Your task to perform on an android device: uninstall "Spotify: Music and Podcasts" Image 0: 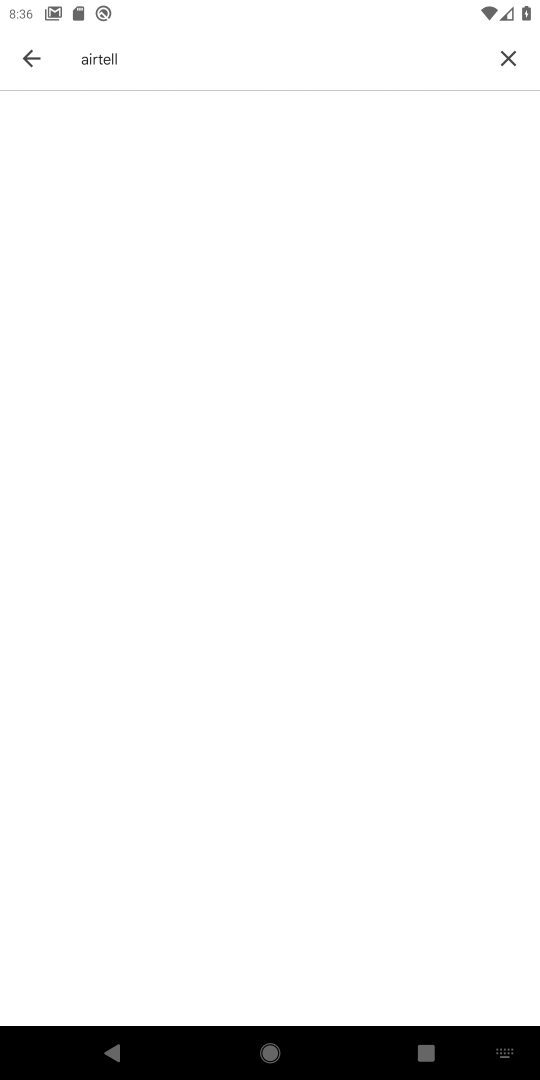
Step 0: press home button
Your task to perform on an android device: uninstall "Spotify: Music and Podcasts" Image 1: 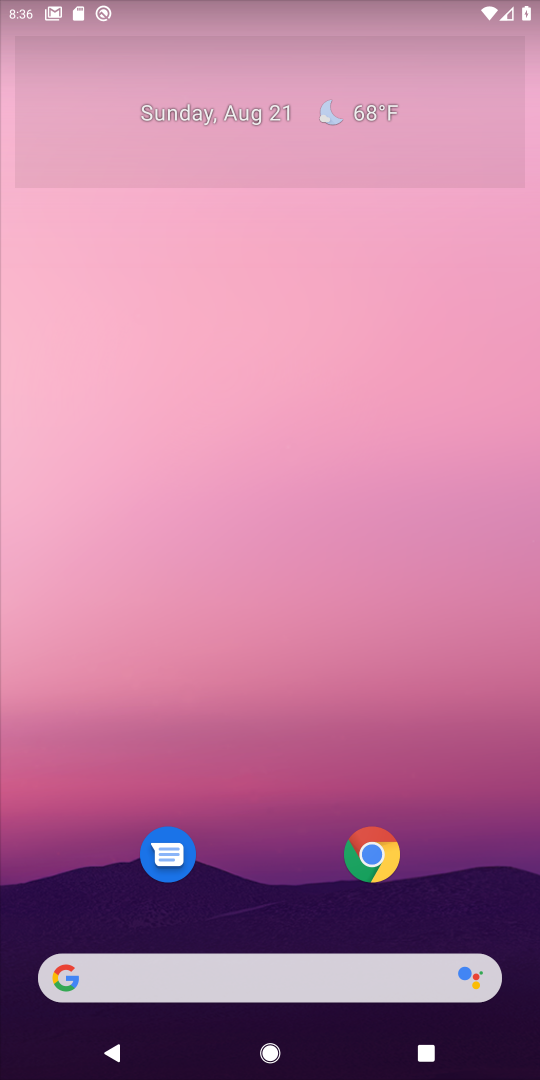
Step 1: drag from (285, 929) to (380, 199)
Your task to perform on an android device: uninstall "Spotify: Music and Podcasts" Image 2: 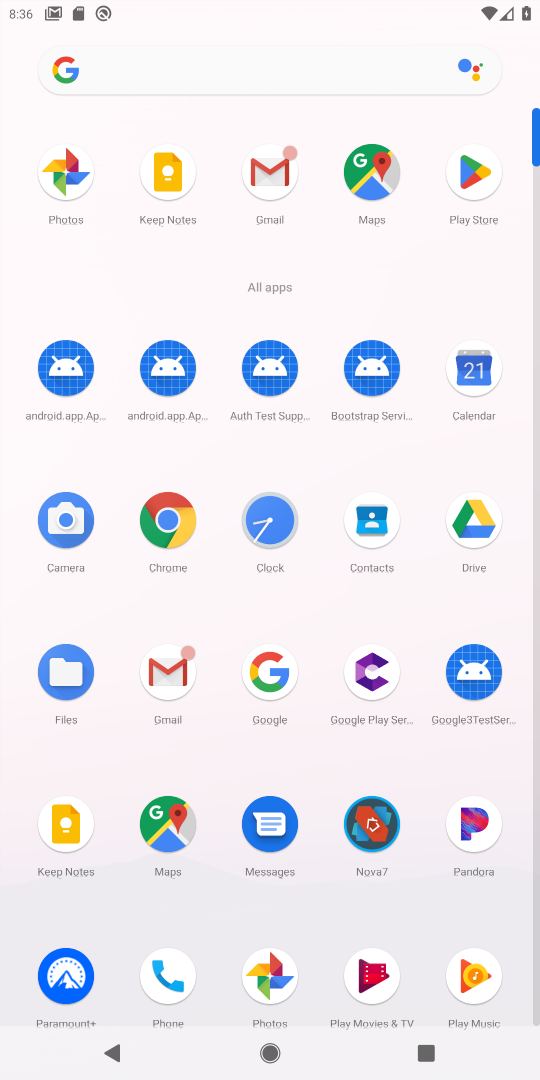
Step 2: click (474, 178)
Your task to perform on an android device: uninstall "Spotify: Music and Podcasts" Image 3: 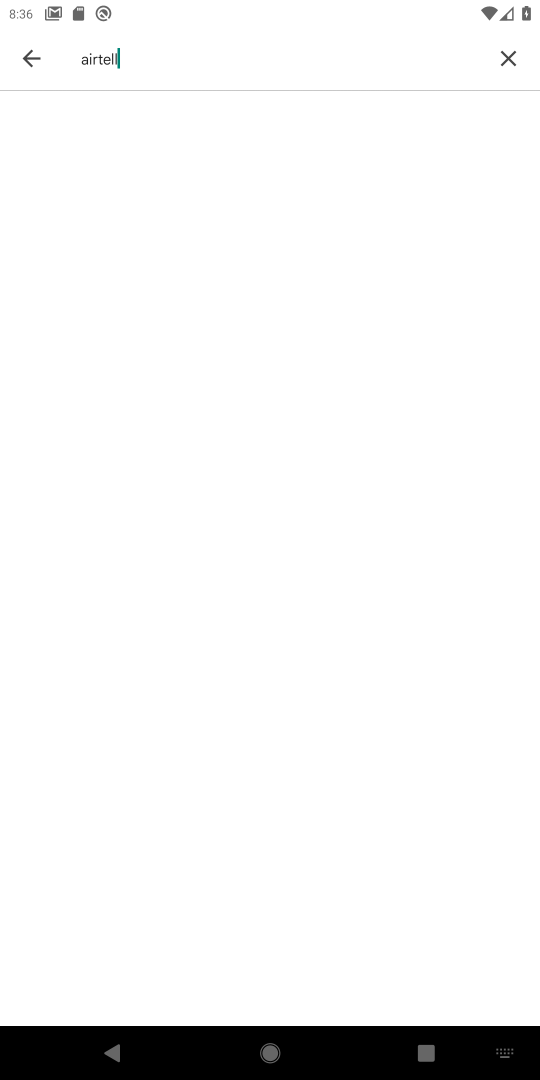
Step 3: click (509, 82)
Your task to perform on an android device: uninstall "Spotify: Music and Podcasts" Image 4: 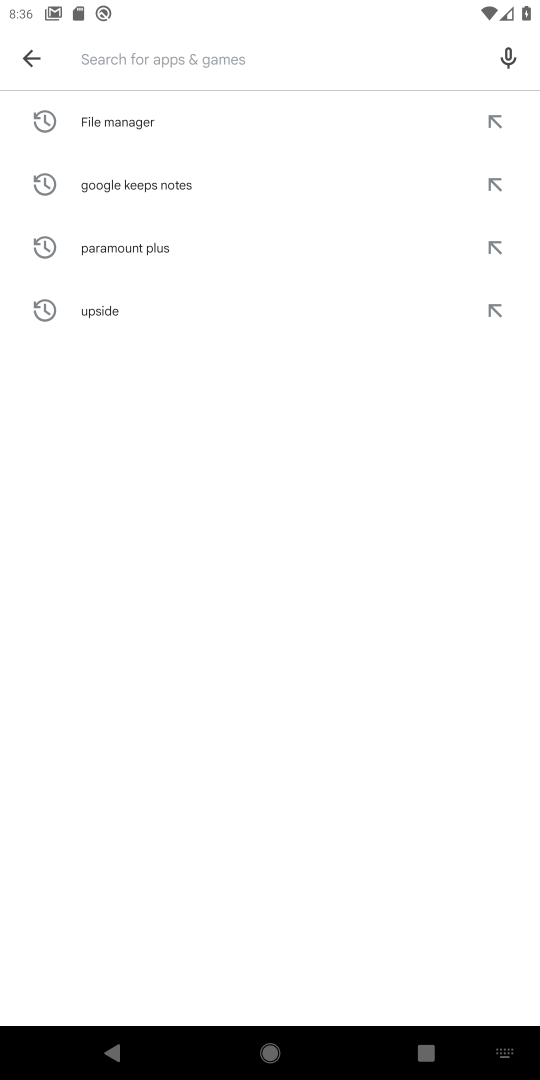
Step 4: type "spotify"
Your task to perform on an android device: uninstall "Spotify: Music and Podcasts" Image 5: 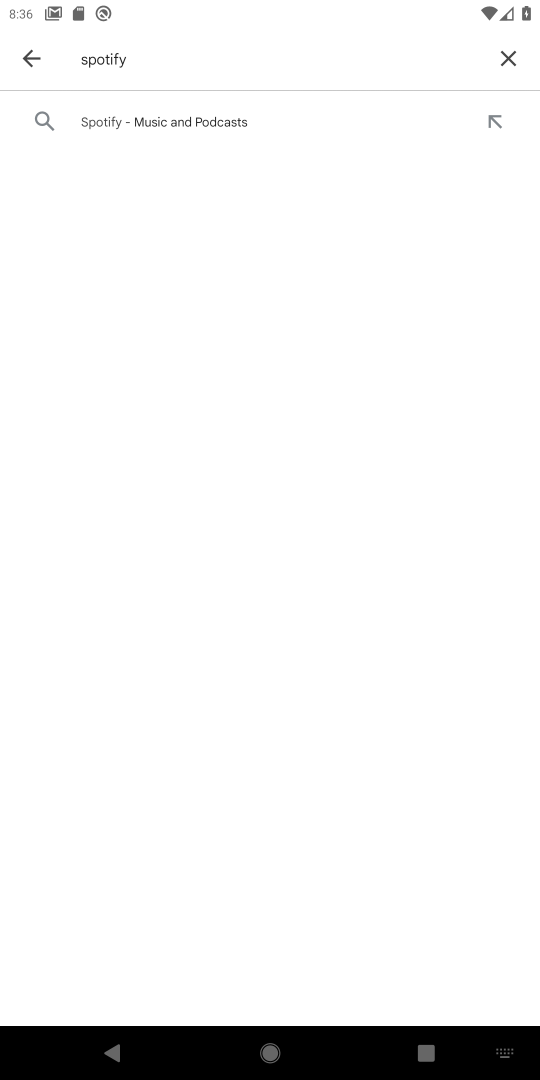
Step 5: click (155, 138)
Your task to perform on an android device: uninstall "Spotify: Music and Podcasts" Image 6: 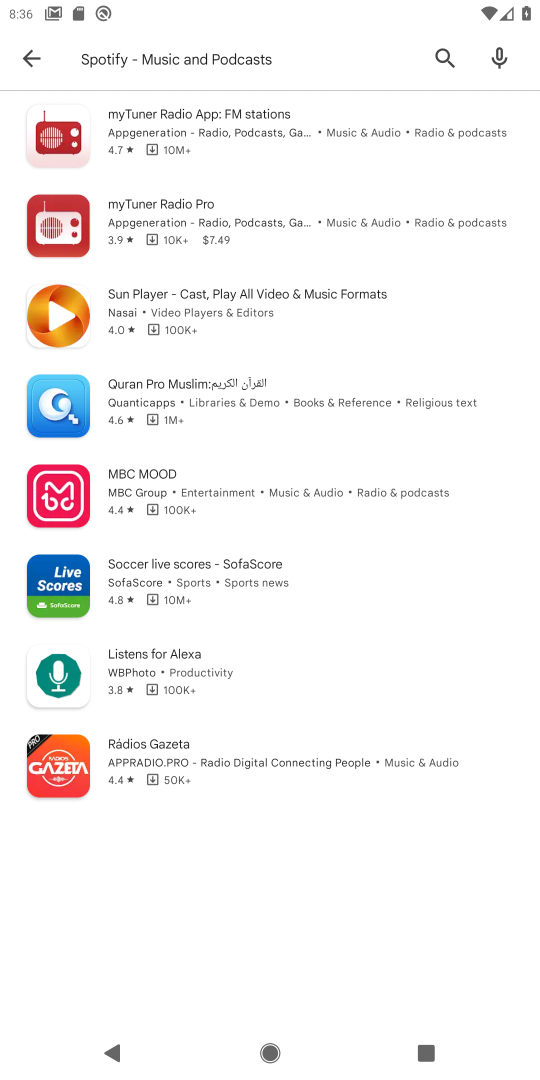
Step 6: click (449, 124)
Your task to perform on an android device: uninstall "Spotify: Music and Podcasts" Image 7: 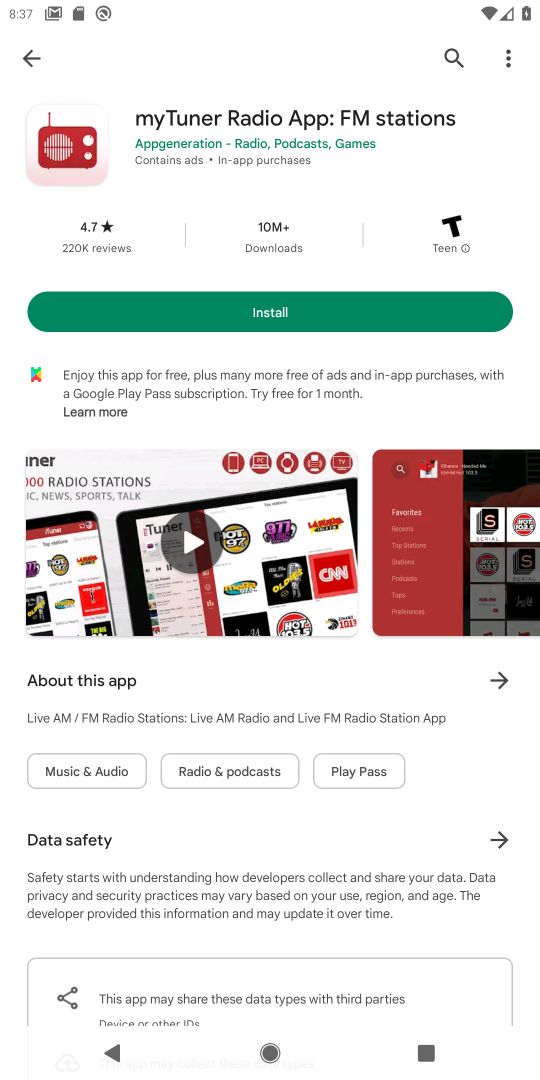
Step 7: task complete